Your task to perform on an android device: Open calendar and show me the first week of next month Image 0: 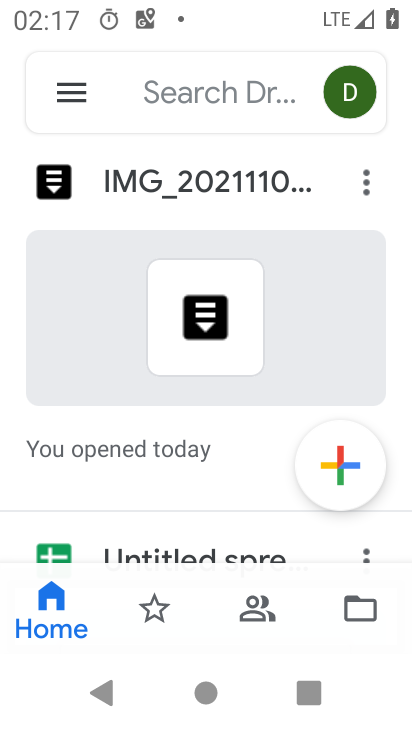
Step 0: press home button
Your task to perform on an android device: Open calendar and show me the first week of next month Image 1: 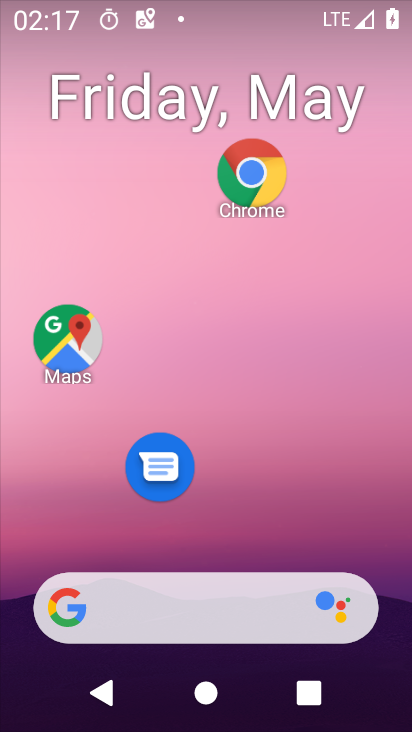
Step 1: drag from (239, 622) to (246, 185)
Your task to perform on an android device: Open calendar and show me the first week of next month Image 2: 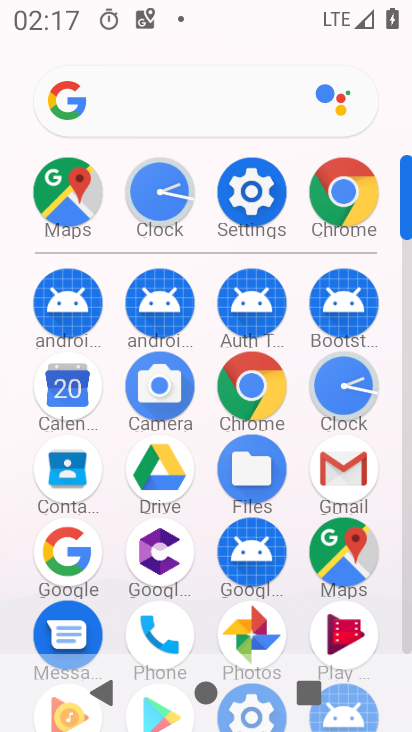
Step 2: click (72, 406)
Your task to perform on an android device: Open calendar and show me the first week of next month Image 3: 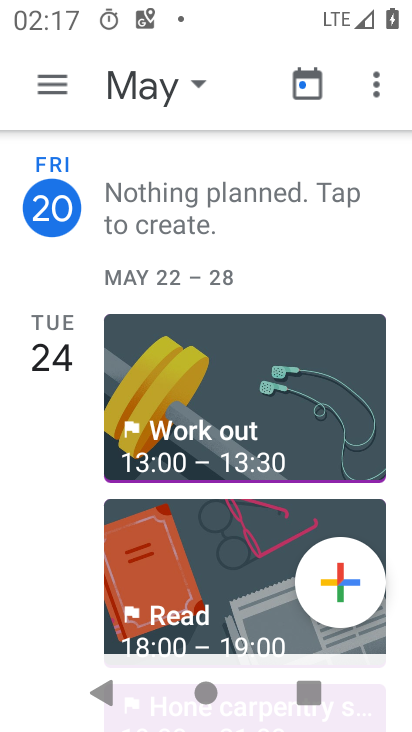
Step 3: click (45, 87)
Your task to perform on an android device: Open calendar and show me the first week of next month Image 4: 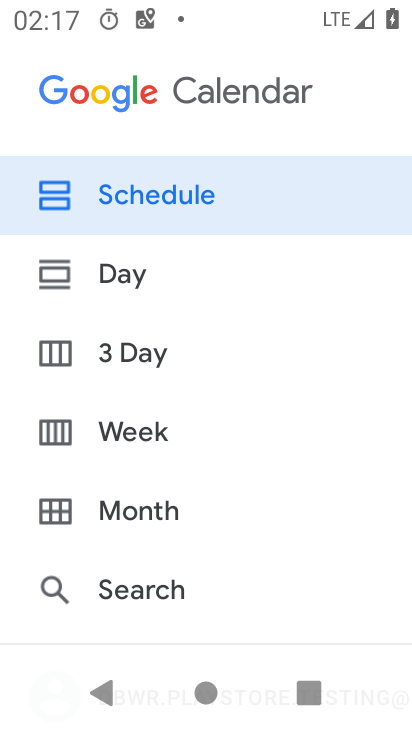
Step 4: click (150, 513)
Your task to perform on an android device: Open calendar and show me the first week of next month Image 5: 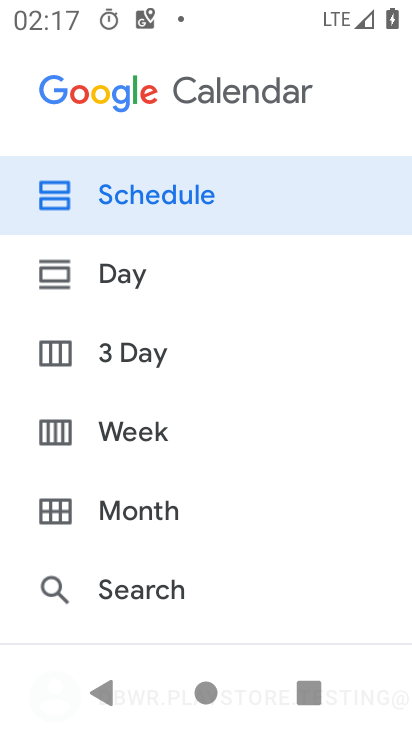
Step 5: click (143, 512)
Your task to perform on an android device: Open calendar and show me the first week of next month Image 6: 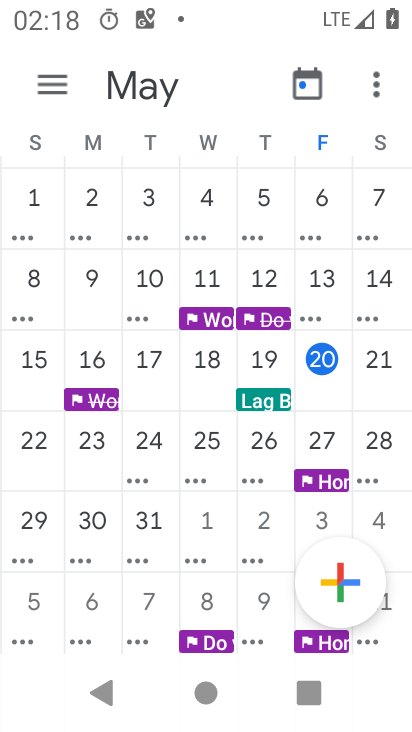
Step 6: drag from (379, 442) to (4, 394)
Your task to perform on an android device: Open calendar and show me the first week of next month Image 7: 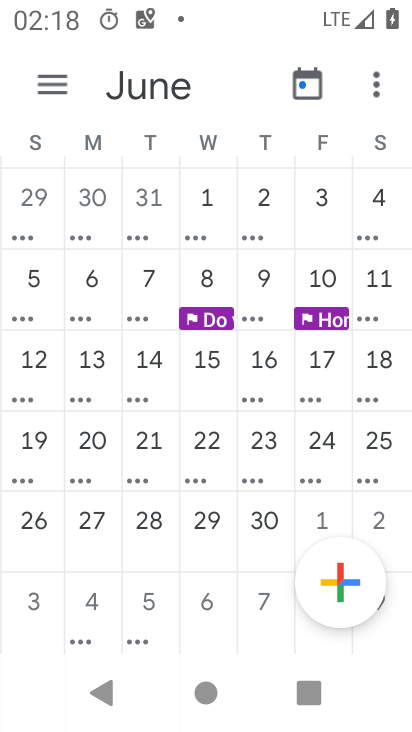
Step 7: click (202, 242)
Your task to perform on an android device: Open calendar and show me the first week of next month Image 8: 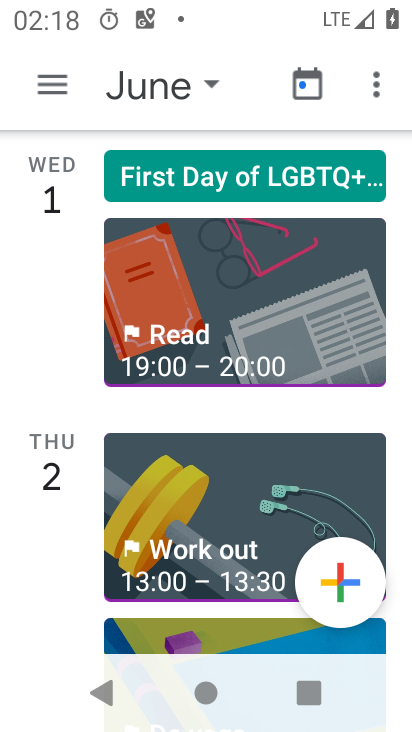
Step 8: task complete